Your task to perform on an android device: Open the stopwatch Image 0: 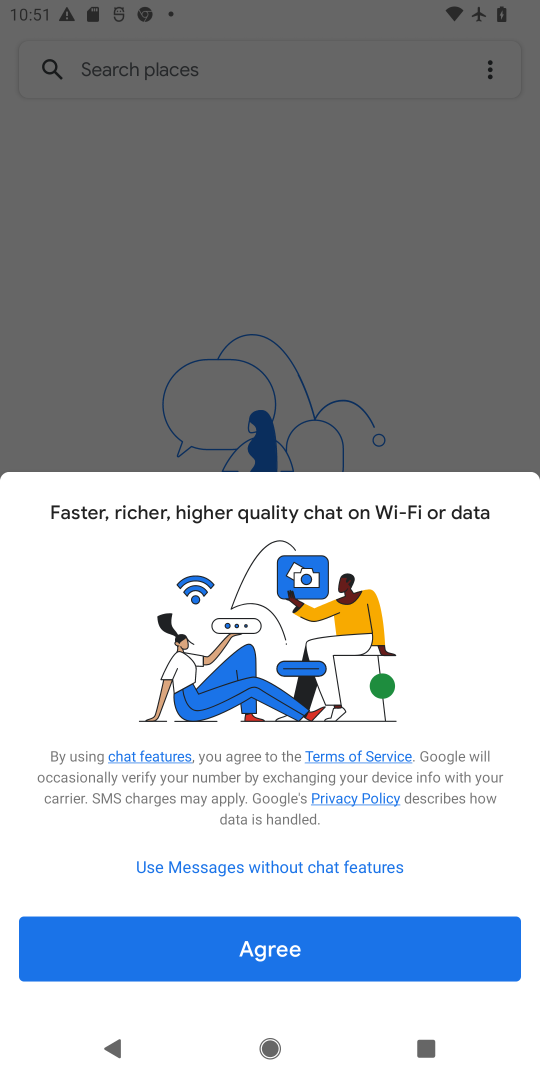
Step 0: press home button
Your task to perform on an android device: Open the stopwatch Image 1: 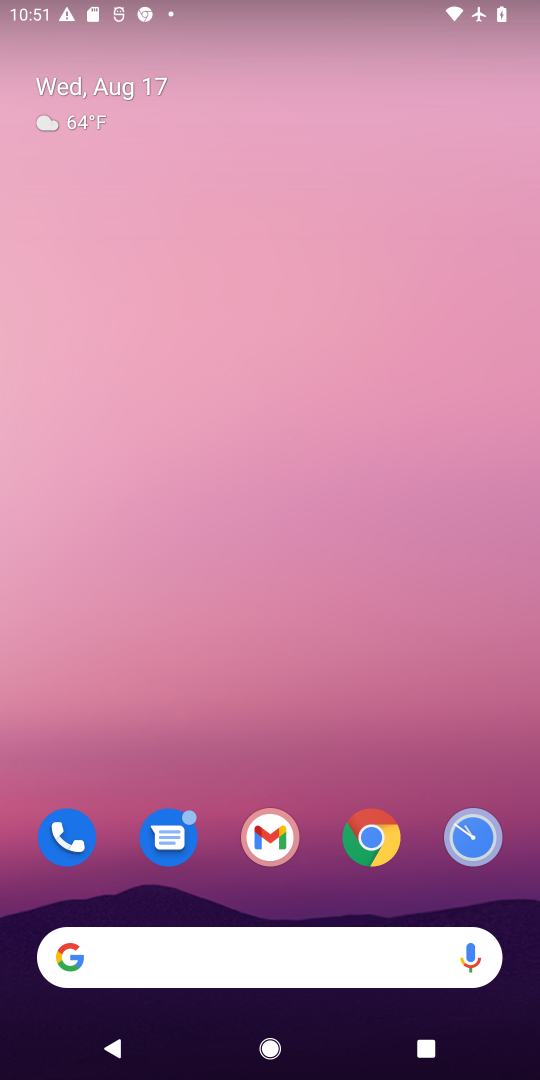
Step 1: click (471, 840)
Your task to perform on an android device: Open the stopwatch Image 2: 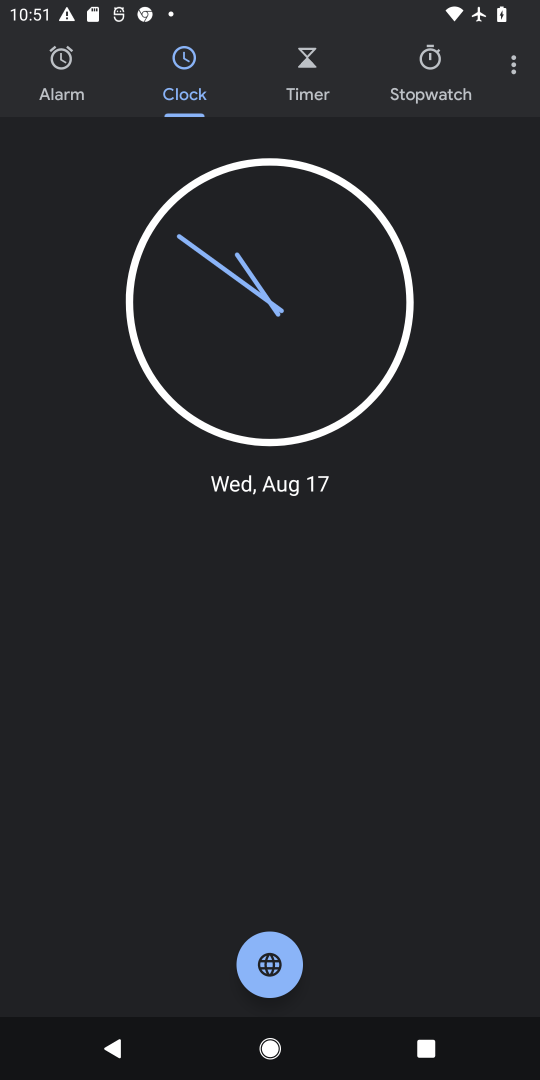
Step 2: click (430, 63)
Your task to perform on an android device: Open the stopwatch Image 3: 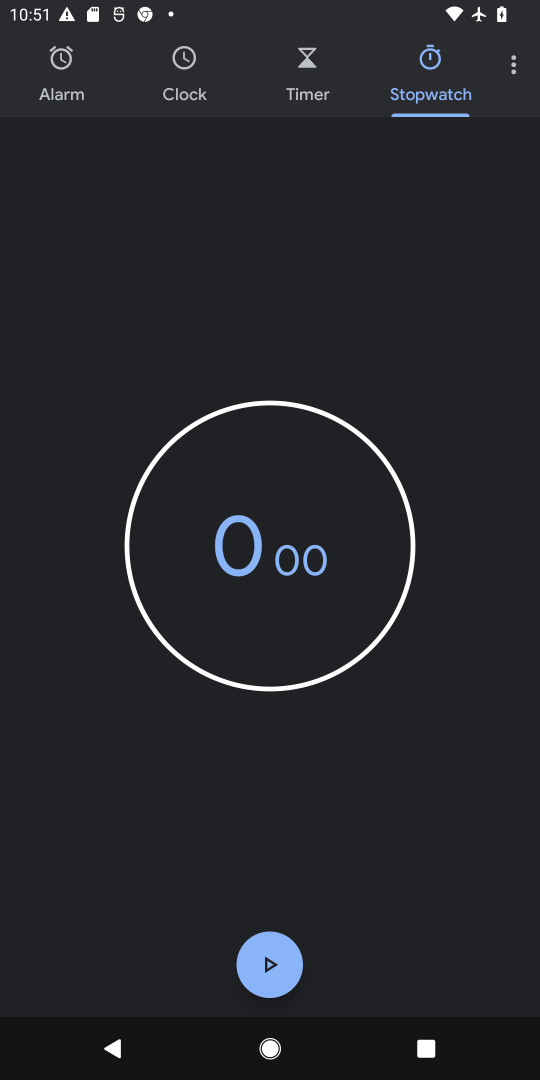
Step 3: task complete